Your task to perform on an android device: toggle data saver in the chrome app Image 0: 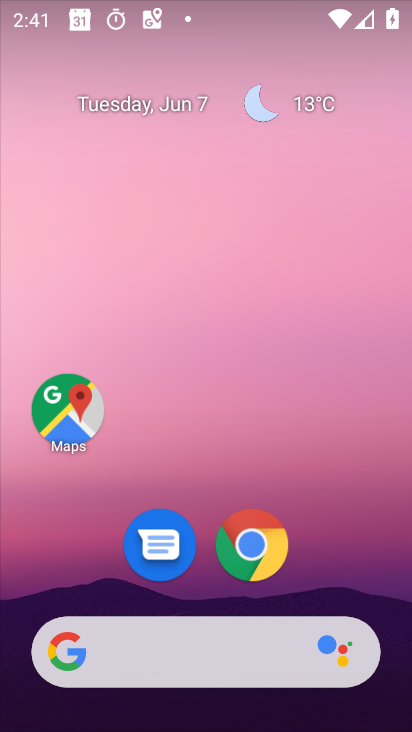
Step 0: click (262, 544)
Your task to perform on an android device: toggle data saver in the chrome app Image 1: 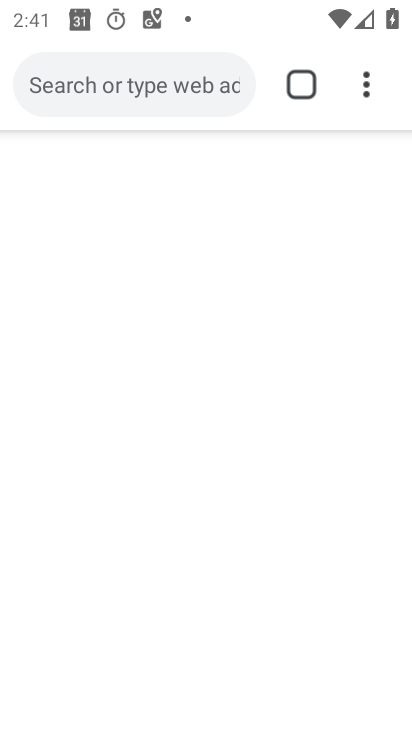
Step 1: click (366, 96)
Your task to perform on an android device: toggle data saver in the chrome app Image 2: 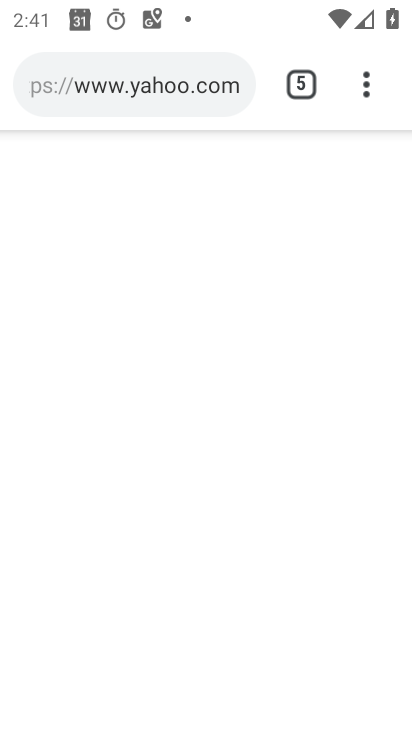
Step 2: click (373, 90)
Your task to perform on an android device: toggle data saver in the chrome app Image 3: 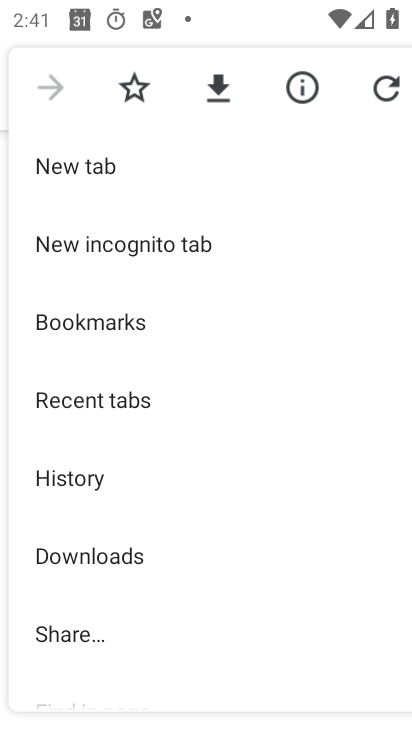
Step 3: drag from (210, 609) to (261, 26)
Your task to perform on an android device: toggle data saver in the chrome app Image 4: 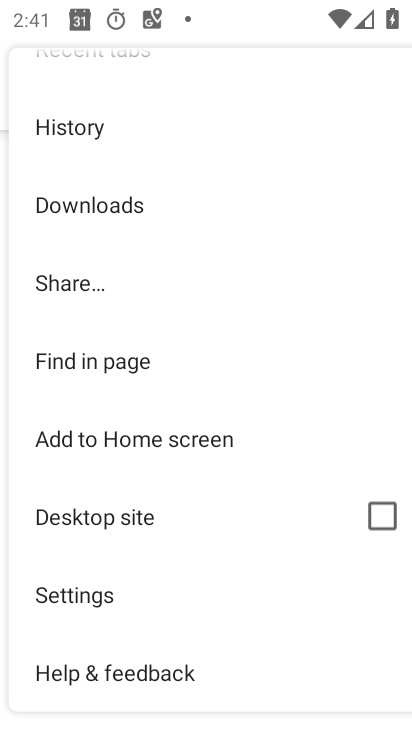
Step 4: click (157, 593)
Your task to perform on an android device: toggle data saver in the chrome app Image 5: 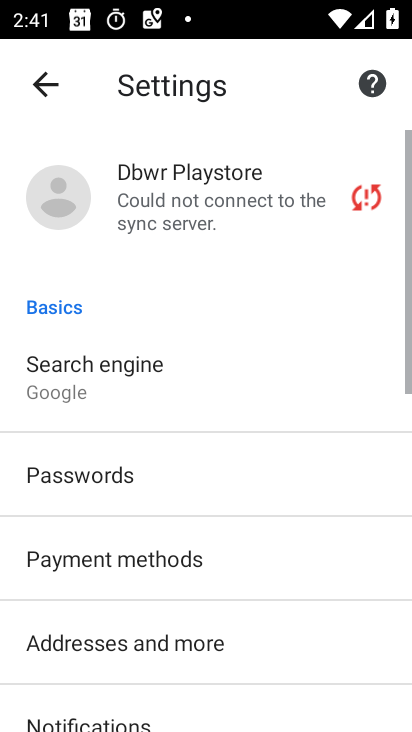
Step 5: click (274, 18)
Your task to perform on an android device: toggle data saver in the chrome app Image 6: 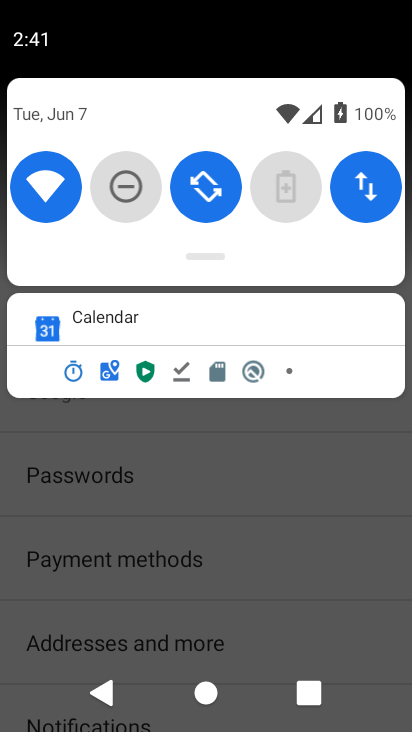
Step 6: drag from (188, 594) to (238, 210)
Your task to perform on an android device: toggle data saver in the chrome app Image 7: 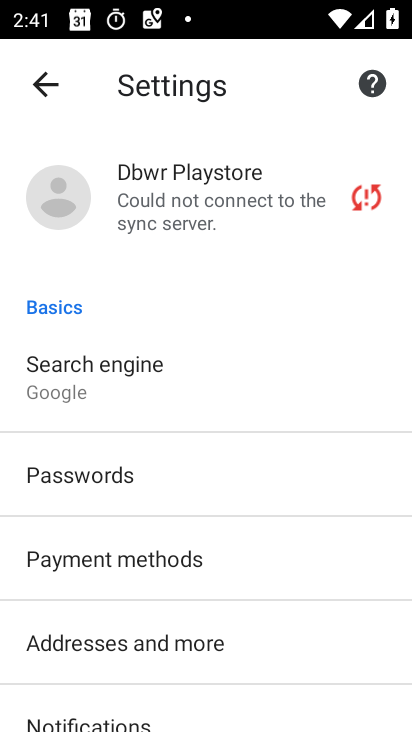
Step 7: drag from (190, 643) to (259, 51)
Your task to perform on an android device: toggle data saver in the chrome app Image 8: 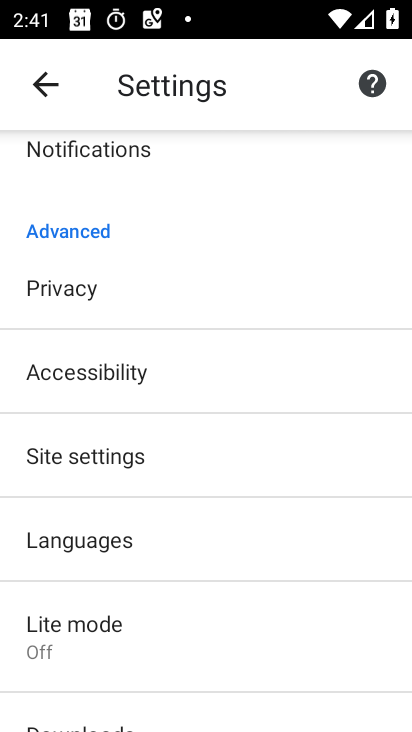
Step 8: click (150, 652)
Your task to perform on an android device: toggle data saver in the chrome app Image 9: 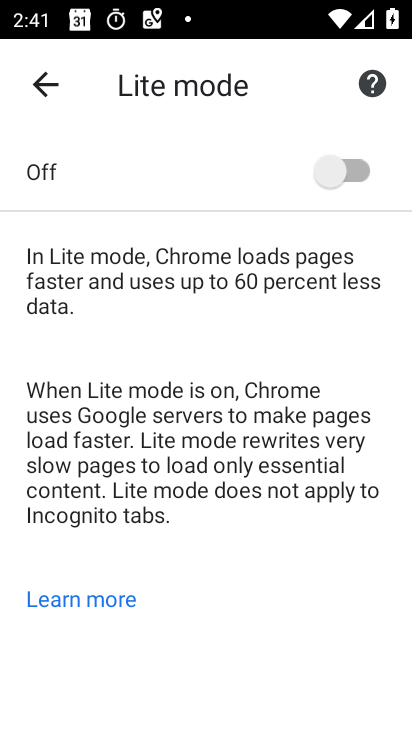
Step 9: click (357, 161)
Your task to perform on an android device: toggle data saver in the chrome app Image 10: 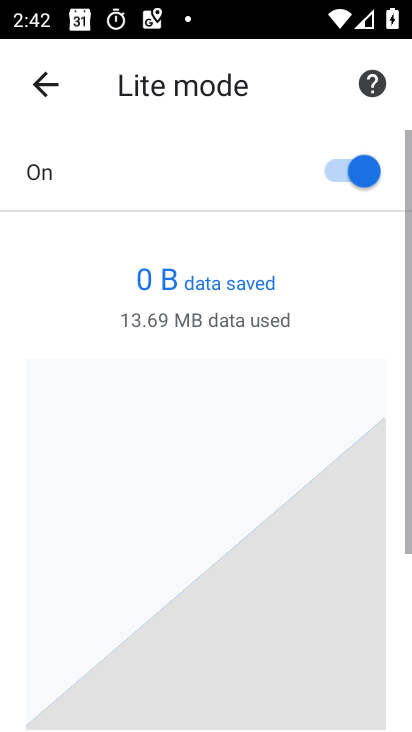
Step 10: task complete